Your task to perform on an android device: Check the news Image 0: 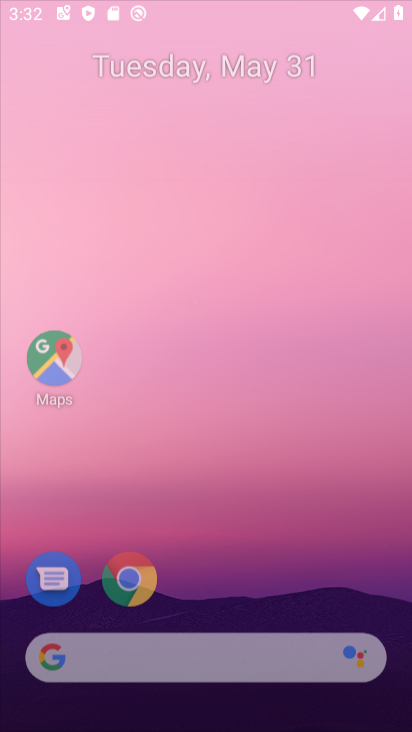
Step 0: press home button
Your task to perform on an android device: Check the news Image 1: 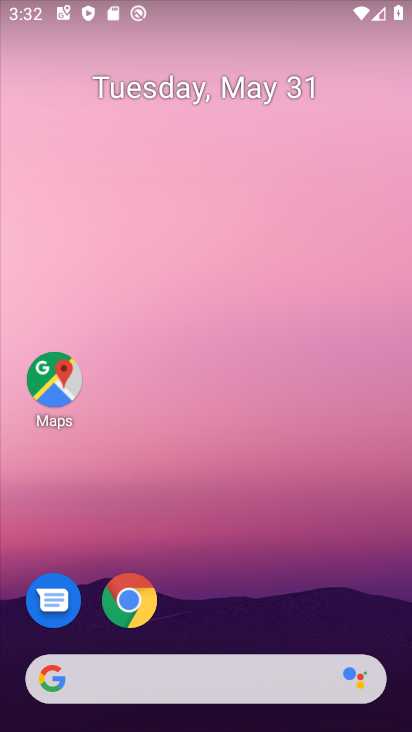
Step 1: drag from (17, 472) to (409, 412)
Your task to perform on an android device: Check the news Image 2: 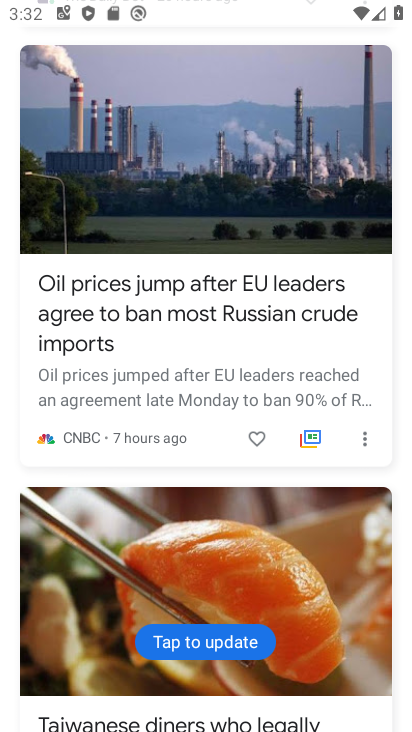
Step 2: drag from (198, 572) to (239, 117)
Your task to perform on an android device: Check the news Image 3: 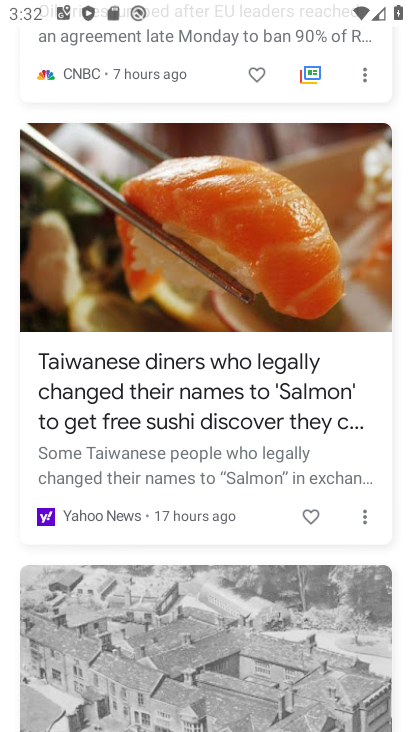
Step 3: drag from (226, 532) to (252, 130)
Your task to perform on an android device: Check the news Image 4: 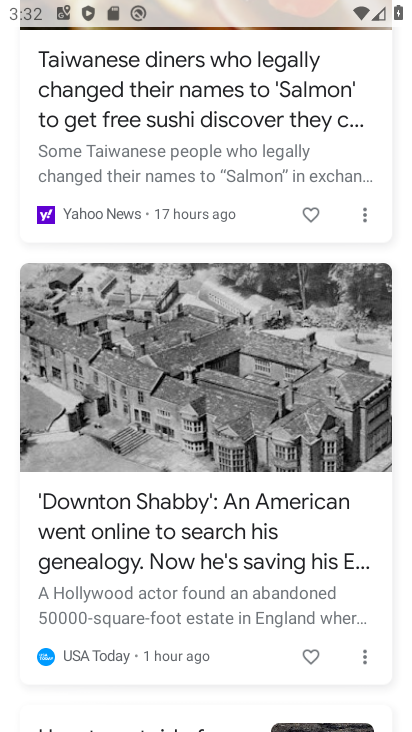
Step 4: click (253, 99)
Your task to perform on an android device: Check the news Image 5: 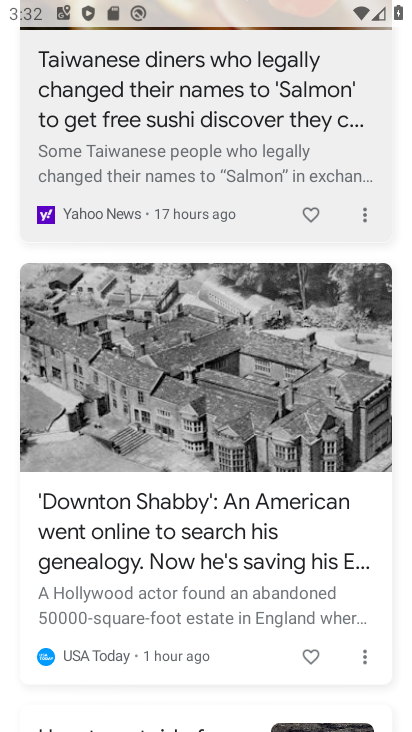
Step 5: task complete